Your task to perform on an android device: turn on airplane mode Image 0: 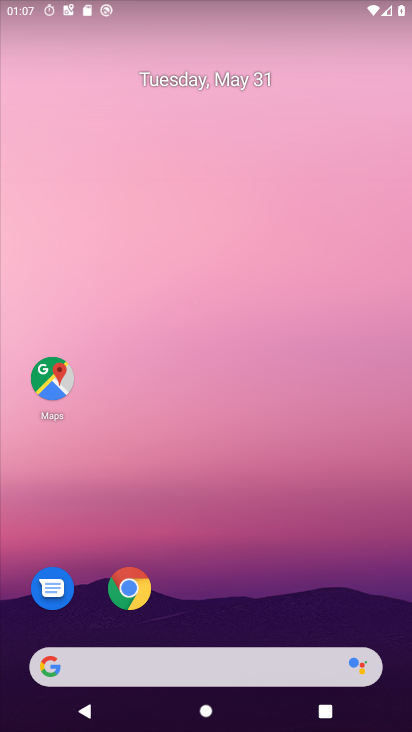
Step 0: drag from (329, 645) to (363, 16)
Your task to perform on an android device: turn on airplane mode Image 1: 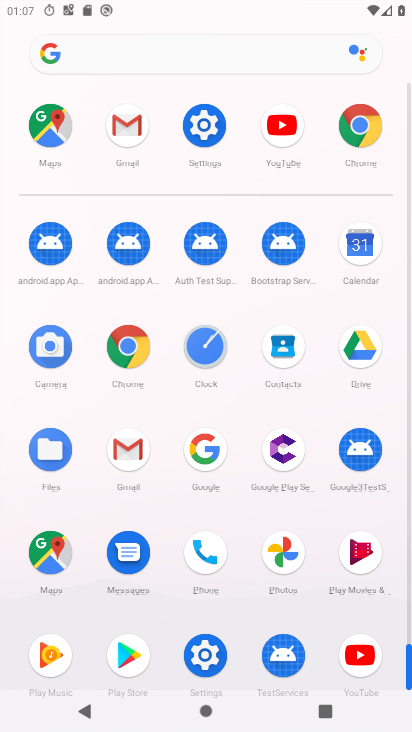
Step 1: click (217, 126)
Your task to perform on an android device: turn on airplane mode Image 2: 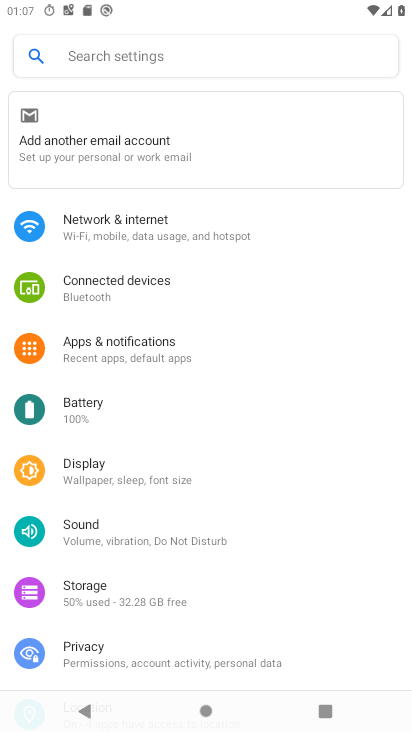
Step 2: click (190, 222)
Your task to perform on an android device: turn on airplane mode Image 3: 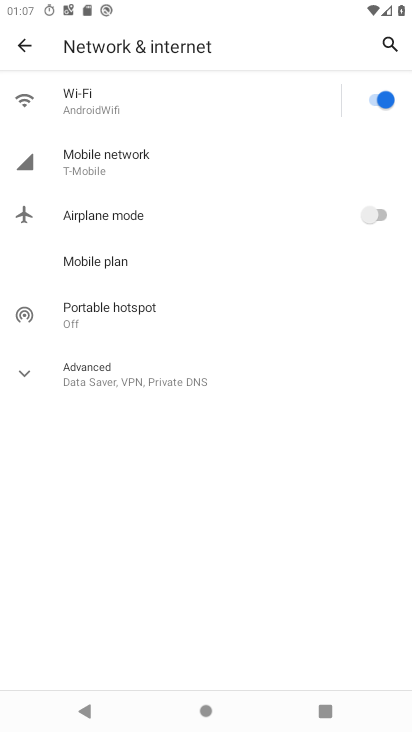
Step 3: click (378, 211)
Your task to perform on an android device: turn on airplane mode Image 4: 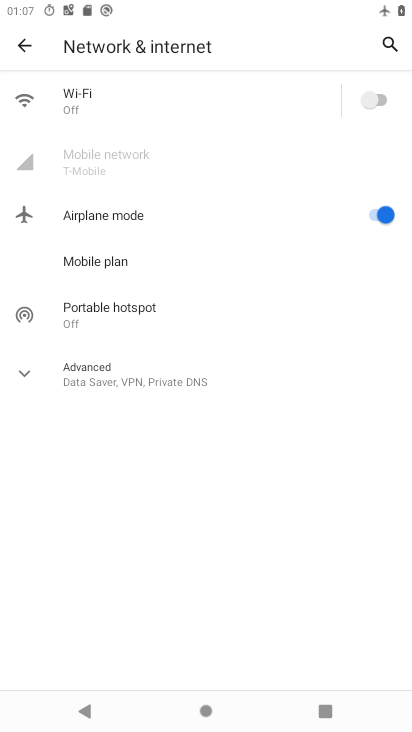
Step 4: task complete